Your task to perform on an android device: What's on my calendar today? Image 0: 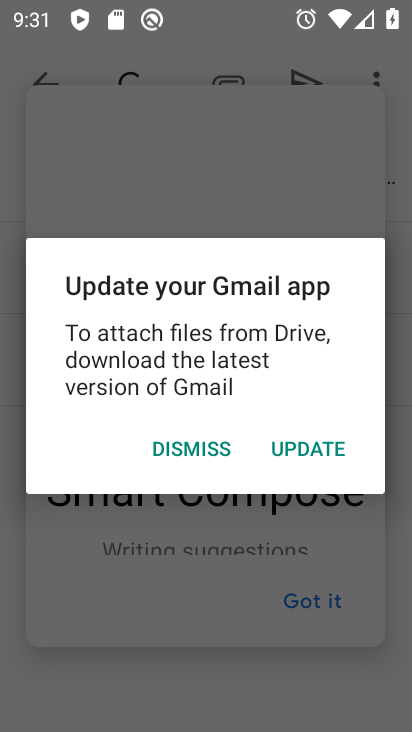
Step 0: press home button
Your task to perform on an android device: What's on my calendar today? Image 1: 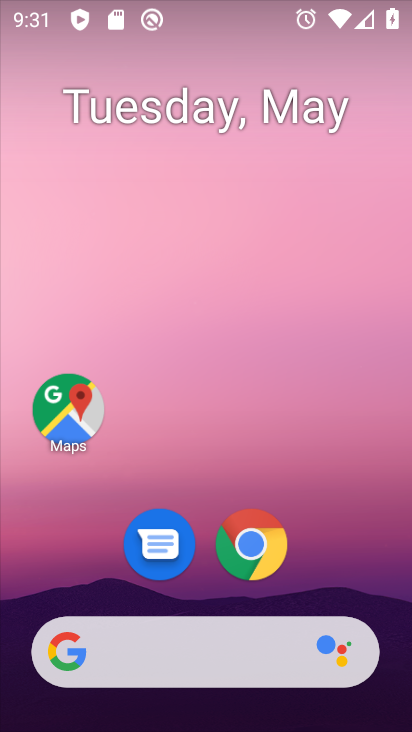
Step 1: drag from (345, 533) to (366, 177)
Your task to perform on an android device: What's on my calendar today? Image 2: 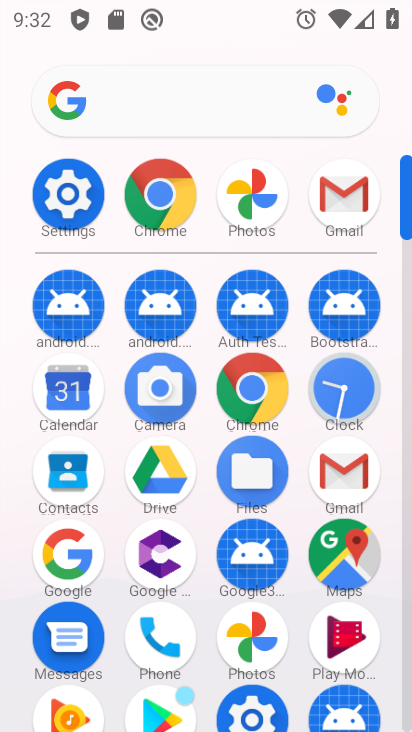
Step 2: click (69, 389)
Your task to perform on an android device: What's on my calendar today? Image 3: 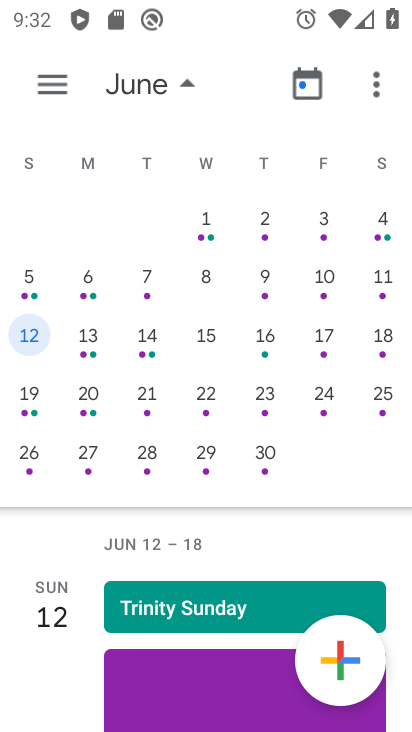
Step 3: drag from (43, 251) to (390, 271)
Your task to perform on an android device: What's on my calendar today? Image 4: 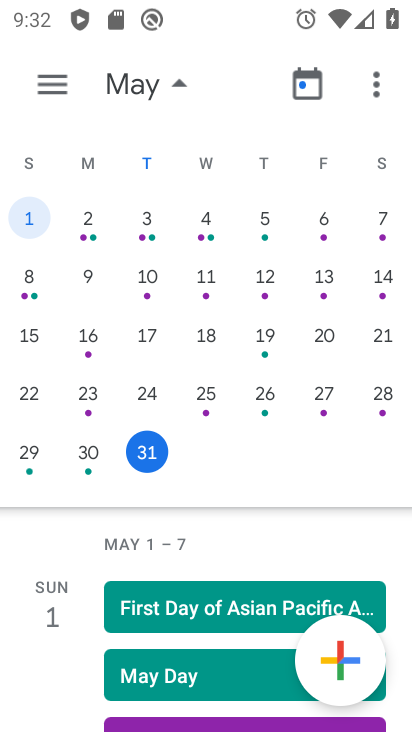
Step 4: click (138, 460)
Your task to perform on an android device: What's on my calendar today? Image 5: 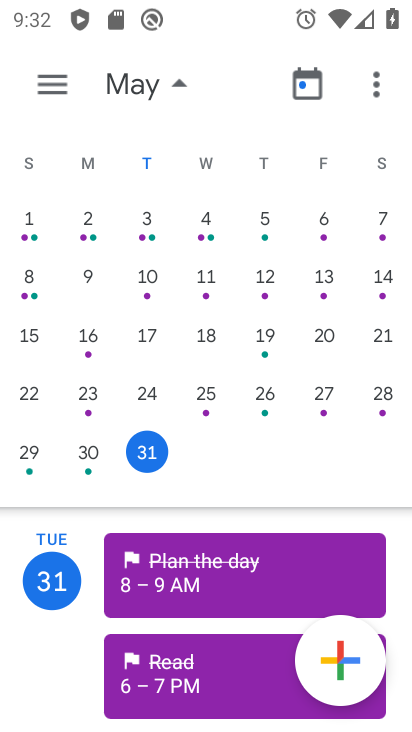
Step 5: task complete